Your task to perform on an android device: Go to network settings Image 0: 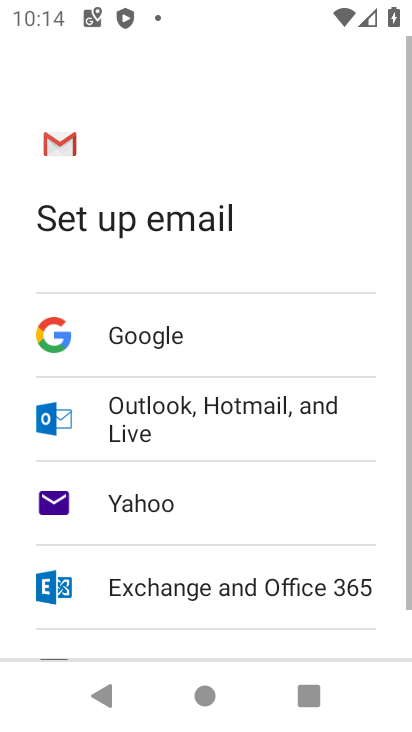
Step 0: press home button
Your task to perform on an android device: Go to network settings Image 1: 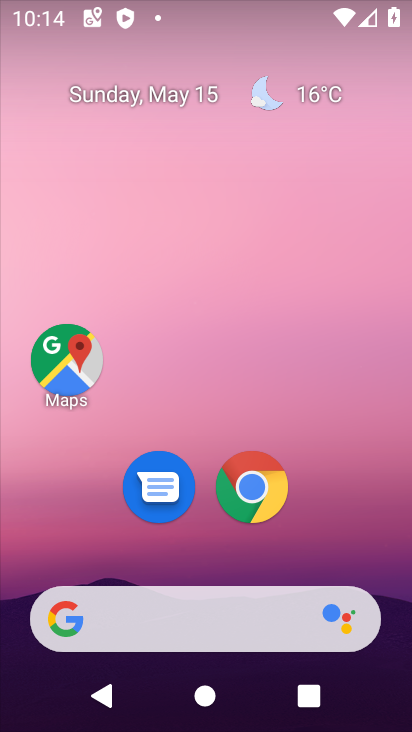
Step 1: drag from (395, 637) to (360, 37)
Your task to perform on an android device: Go to network settings Image 2: 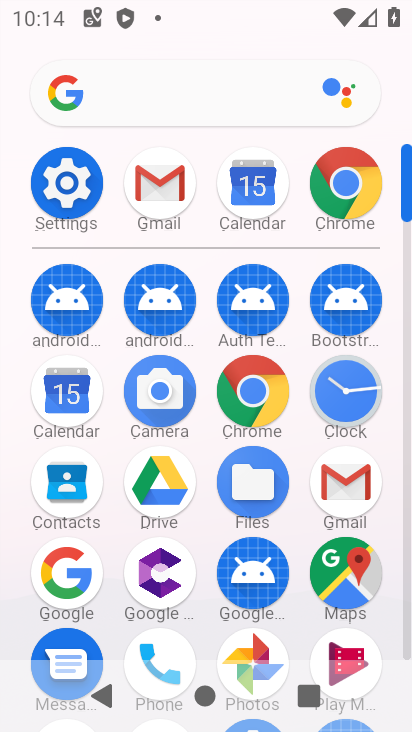
Step 2: click (405, 644)
Your task to perform on an android device: Go to network settings Image 3: 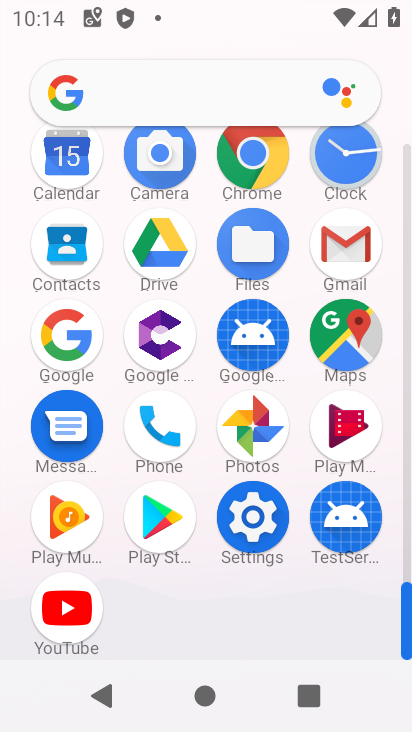
Step 3: click (255, 519)
Your task to perform on an android device: Go to network settings Image 4: 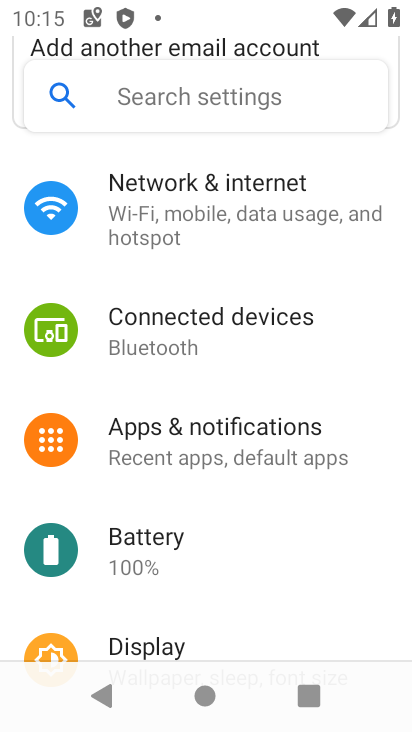
Step 4: click (148, 205)
Your task to perform on an android device: Go to network settings Image 5: 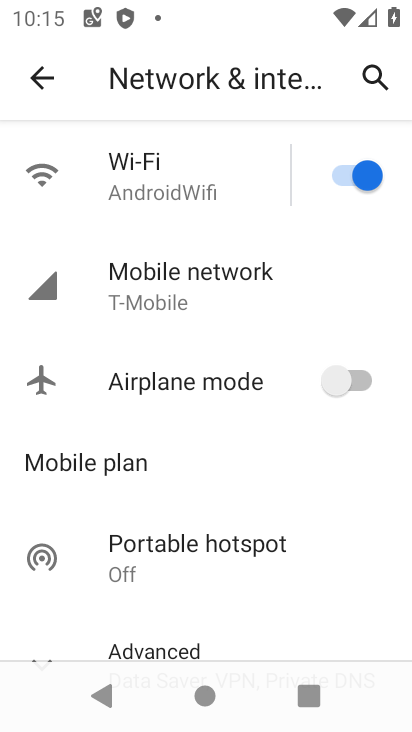
Step 5: click (145, 282)
Your task to perform on an android device: Go to network settings Image 6: 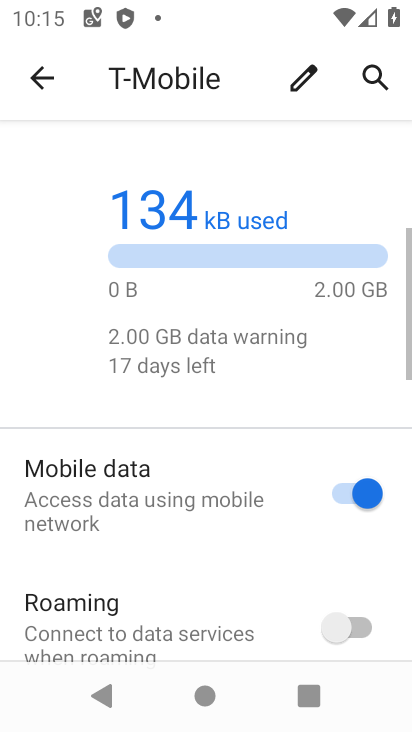
Step 6: task complete